Your task to perform on an android device: Go to notification settings Image 0: 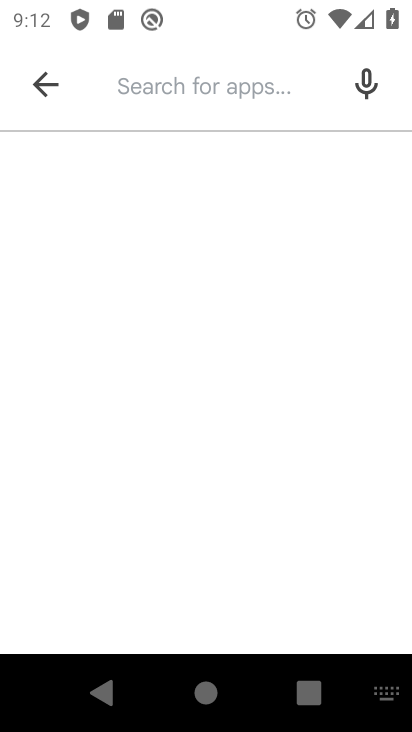
Step 0: press home button
Your task to perform on an android device: Go to notification settings Image 1: 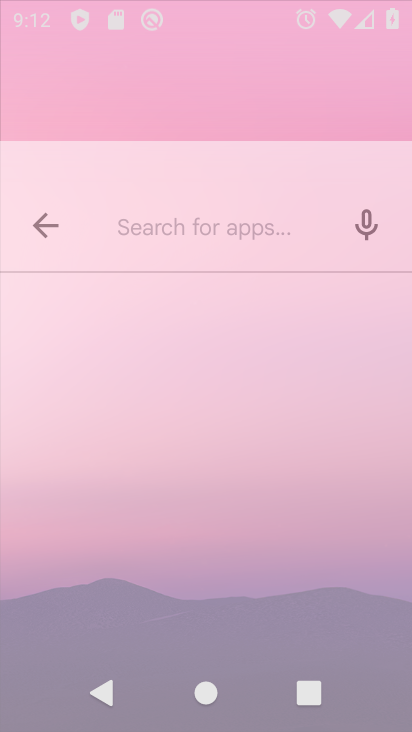
Step 1: drag from (262, 574) to (237, 3)
Your task to perform on an android device: Go to notification settings Image 2: 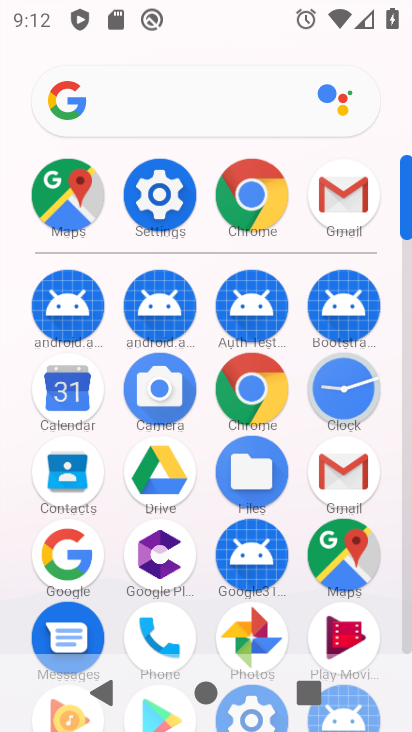
Step 2: drag from (207, 610) to (210, 354)
Your task to perform on an android device: Go to notification settings Image 3: 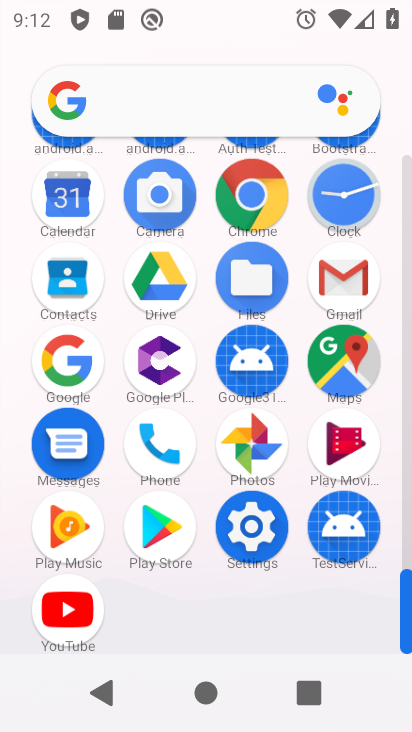
Step 3: click (253, 530)
Your task to perform on an android device: Go to notification settings Image 4: 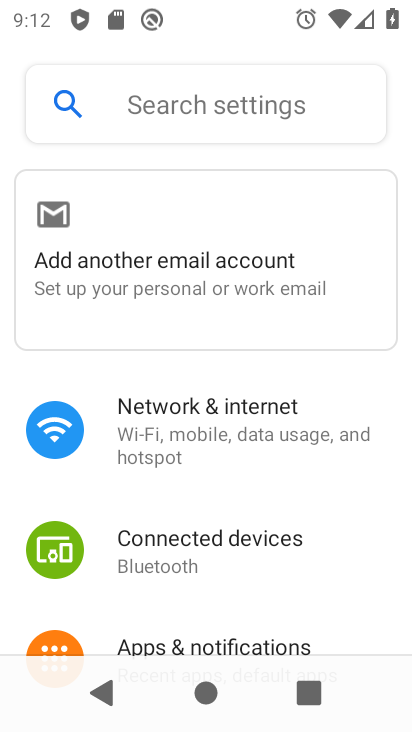
Step 4: drag from (199, 598) to (135, 27)
Your task to perform on an android device: Go to notification settings Image 5: 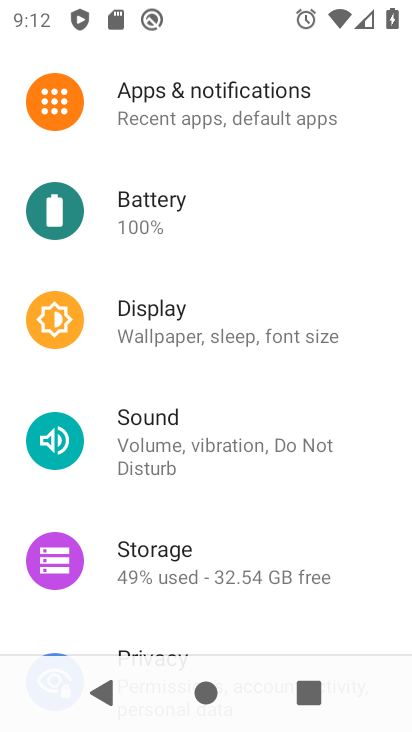
Step 5: drag from (181, 559) to (240, 95)
Your task to perform on an android device: Go to notification settings Image 6: 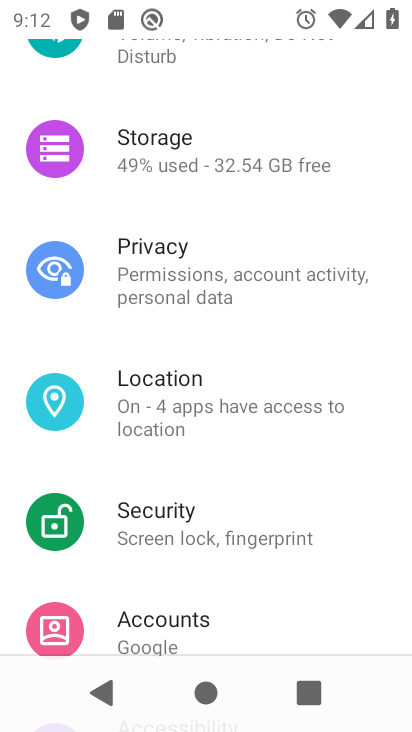
Step 6: drag from (196, 579) to (234, 325)
Your task to perform on an android device: Go to notification settings Image 7: 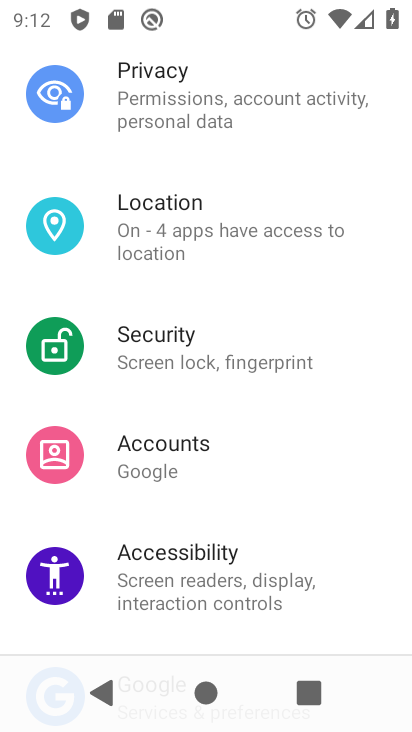
Step 7: drag from (219, 146) to (339, 713)
Your task to perform on an android device: Go to notification settings Image 8: 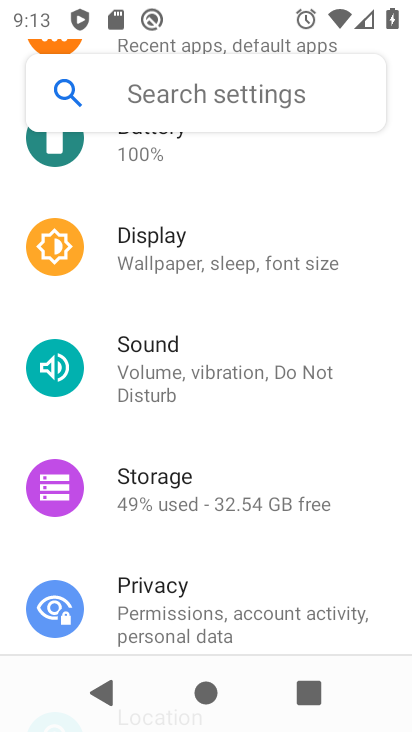
Step 8: drag from (178, 246) to (174, 721)
Your task to perform on an android device: Go to notification settings Image 9: 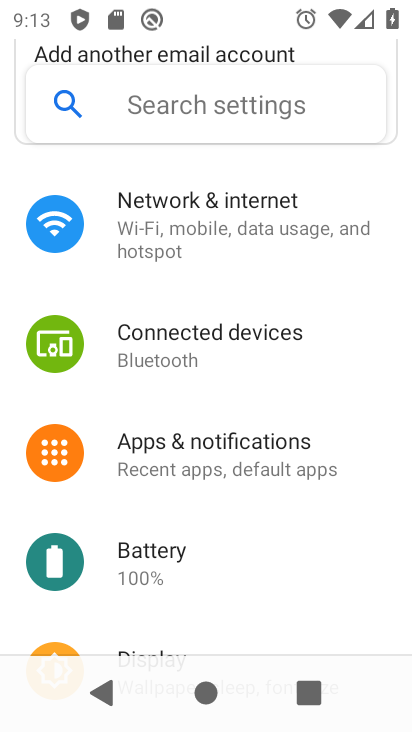
Step 9: drag from (230, 543) to (263, 33)
Your task to perform on an android device: Go to notification settings Image 10: 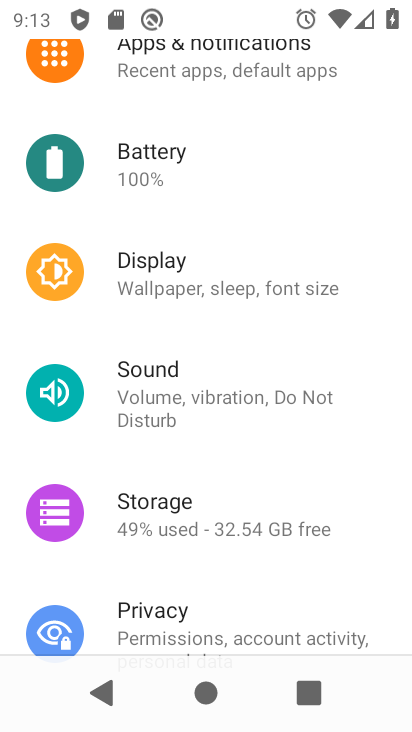
Step 10: drag from (178, 182) to (282, 652)
Your task to perform on an android device: Go to notification settings Image 11: 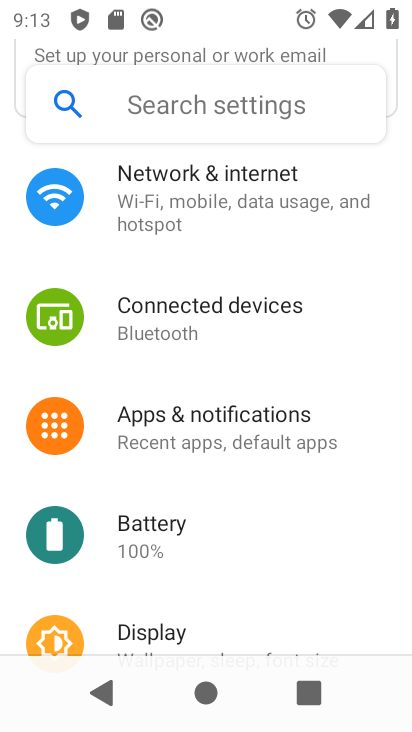
Step 11: click (201, 408)
Your task to perform on an android device: Go to notification settings Image 12: 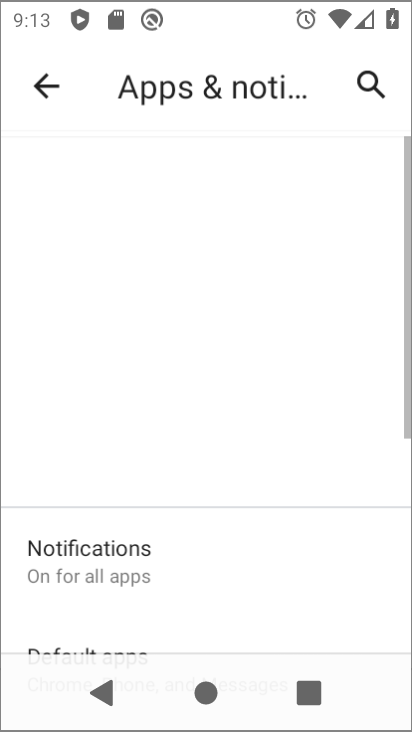
Step 12: drag from (309, 354) to (338, 98)
Your task to perform on an android device: Go to notification settings Image 13: 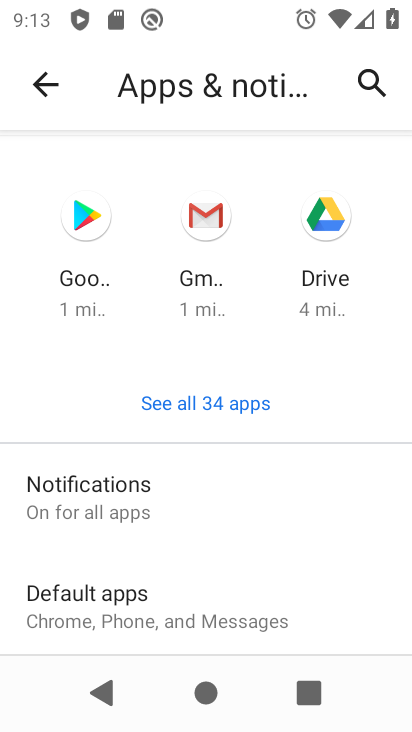
Step 13: drag from (235, 577) to (295, 313)
Your task to perform on an android device: Go to notification settings Image 14: 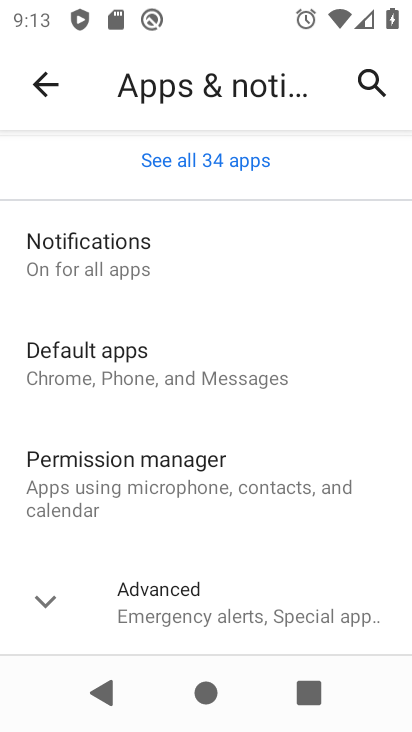
Step 14: click (197, 257)
Your task to perform on an android device: Go to notification settings Image 15: 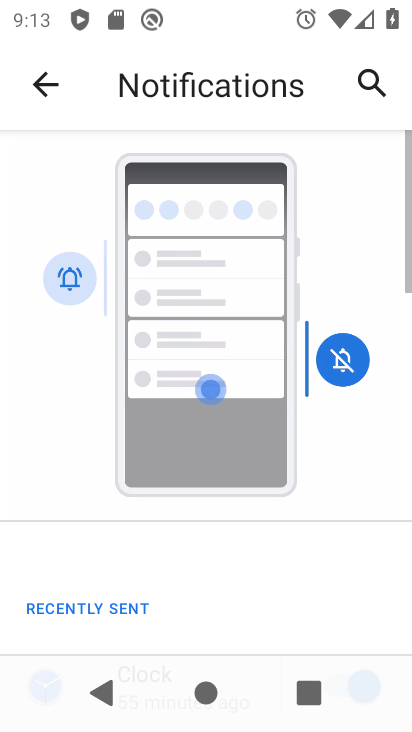
Step 15: drag from (217, 561) to (300, 120)
Your task to perform on an android device: Go to notification settings Image 16: 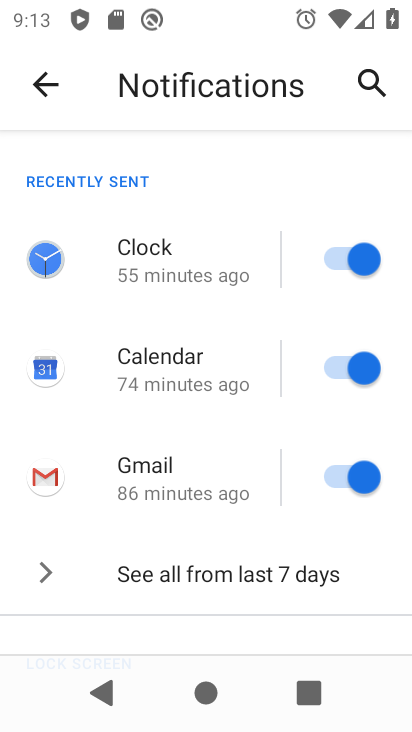
Step 16: drag from (222, 507) to (292, 198)
Your task to perform on an android device: Go to notification settings Image 17: 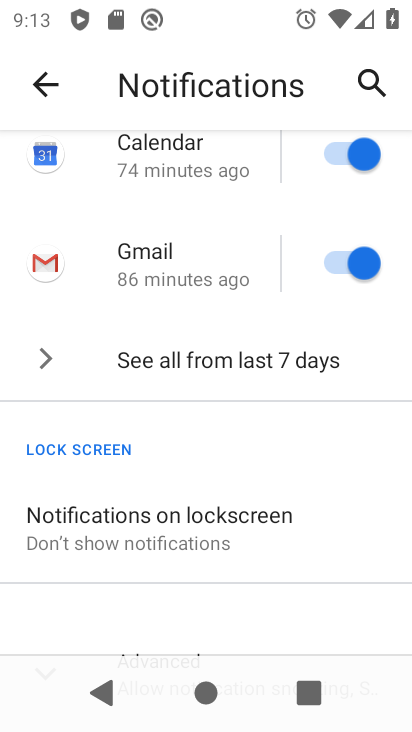
Step 17: drag from (238, 521) to (268, 217)
Your task to perform on an android device: Go to notification settings Image 18: 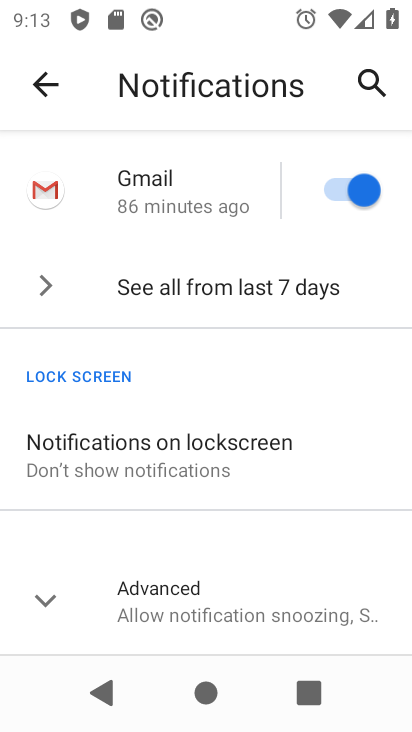
Step 18: click (182, 605)
Your task to perform on an android device: Go to notification settings Image 19: 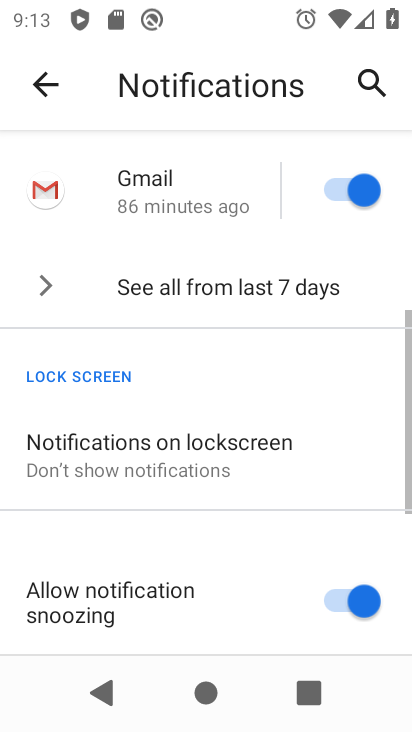
Step 19: task complete